Your task to perform on an android device: Open the phone app and click the voicemail tab. Image 0: 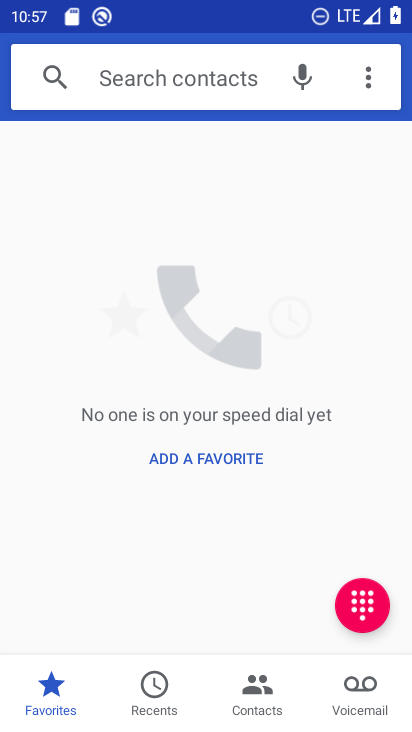
Step 0: click (372, 684)
Your task to perform on an android device: Open the phone app and click the voicemail tab. Image 1: 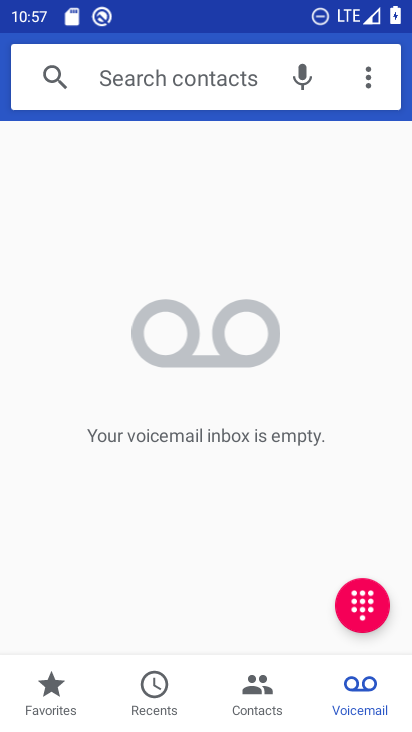
Step 1: task complete